Your task to perform on an android device: change alarm snooze length Image 0: 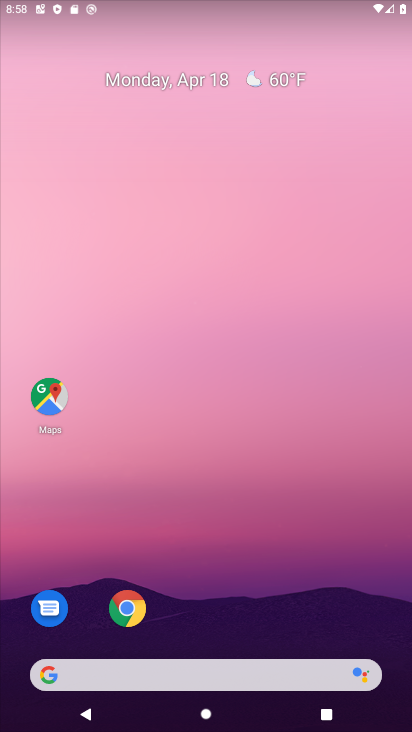
Step 0: drag from (212, 625) to (276, 114)
Your task to perform on an android device: change alarm snooze length Image 1: 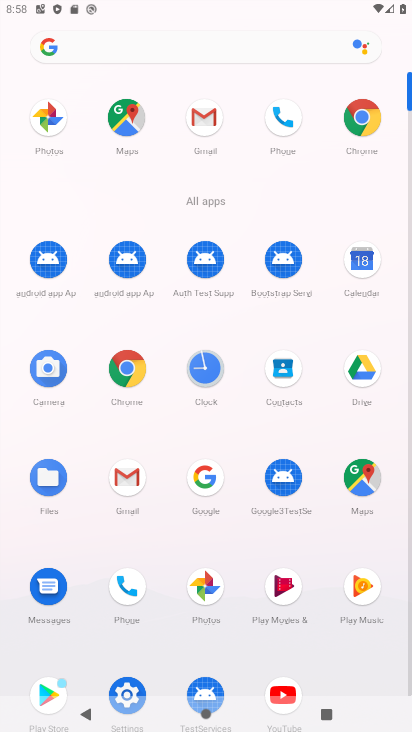
Step 1: drag from (181, 592) to (214, 227)
Your task to perform on an android device: change alarm snooze length Image 2: 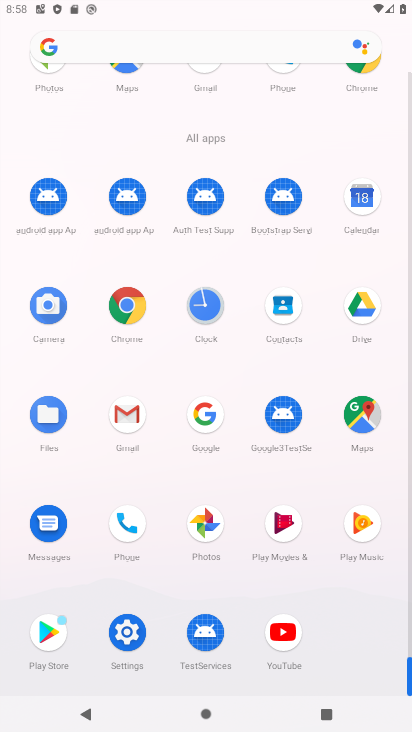
Step 2: click (205, 307)
Your task to perform on an android device: change alarm snooze length Image 3: 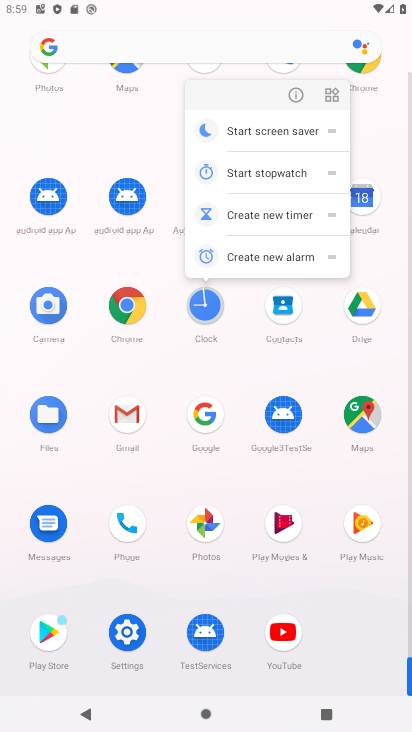
Step 3: click (298, 87)
Your task to perform on an android device: change alarm snooze length Image 4: 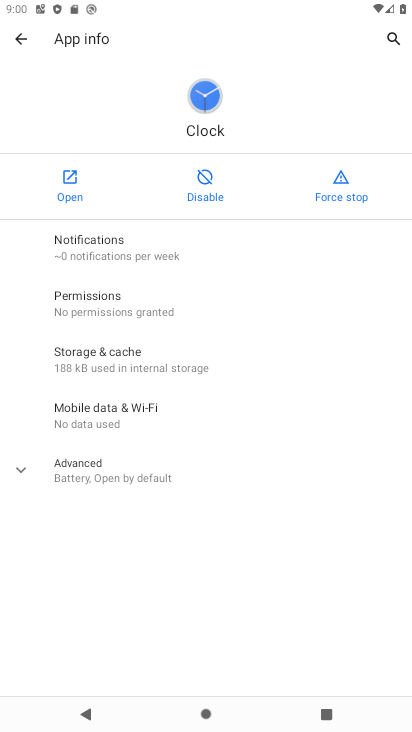
Step 4: click (65, 178)
Your task to perform on an android device: change alarm snooze length Image 5: 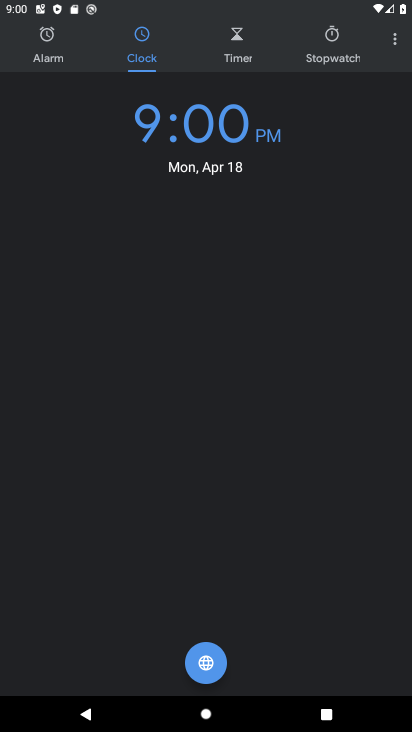
Step 5: click (242, 38)
Your task to perform on an android device: change alarm snooze length Image 6: 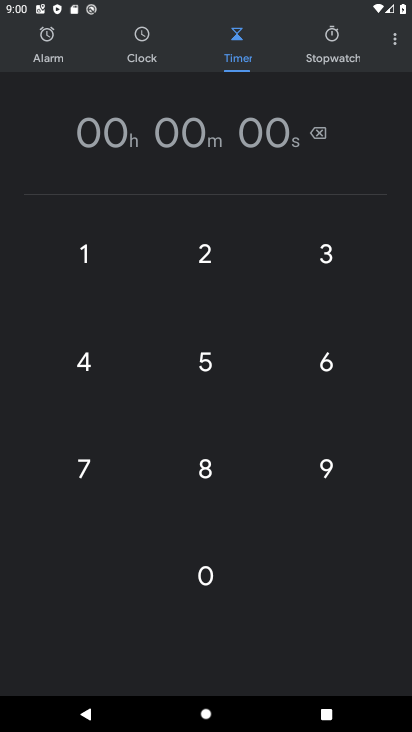
Step 6: click (345, 52)
Your task to perform on an android device: change alarm snooze length Image 7: 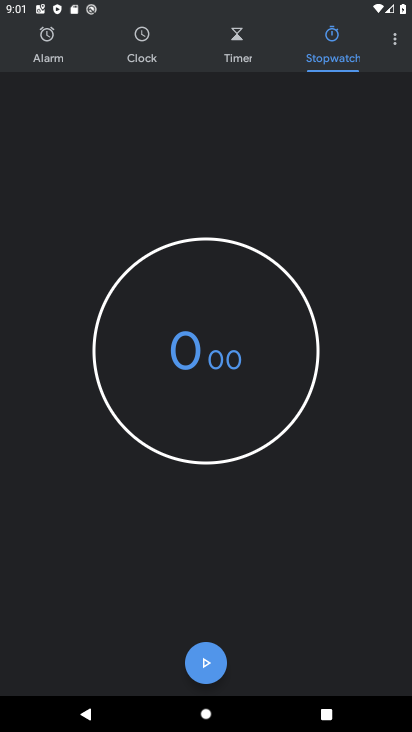
Step 7: click (228, 565)
Your task to perform on an android device: change alarm snooze length Image 8: 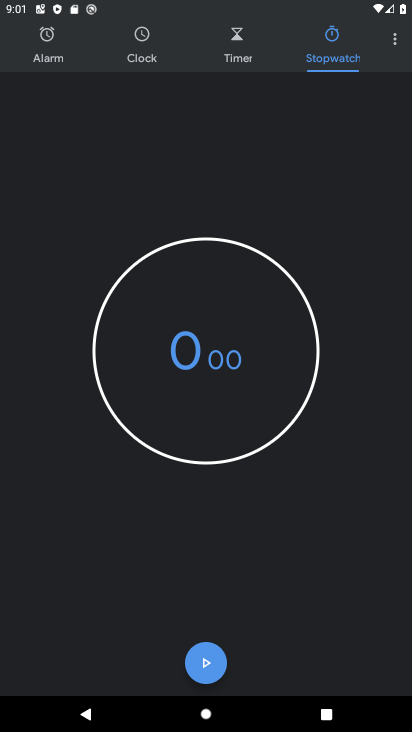
Step 8: drag from (151, 485) to (186, 142)
Your task to perform on an android device: change alarm snooze length Image 9: 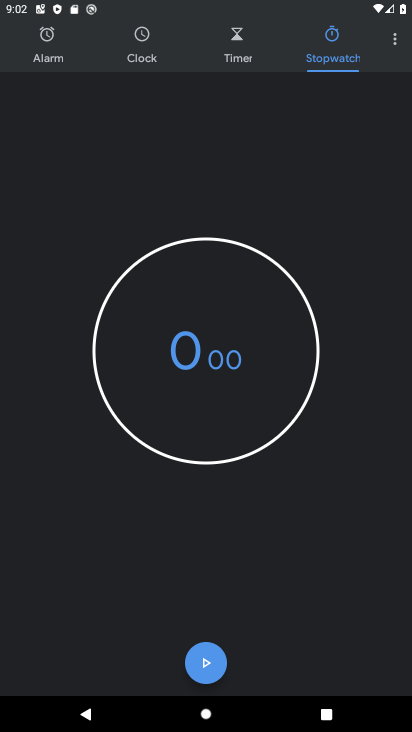
Step 9: click (233, 48)
Your task to perform on an android device: change alarm snooze length Image 10: 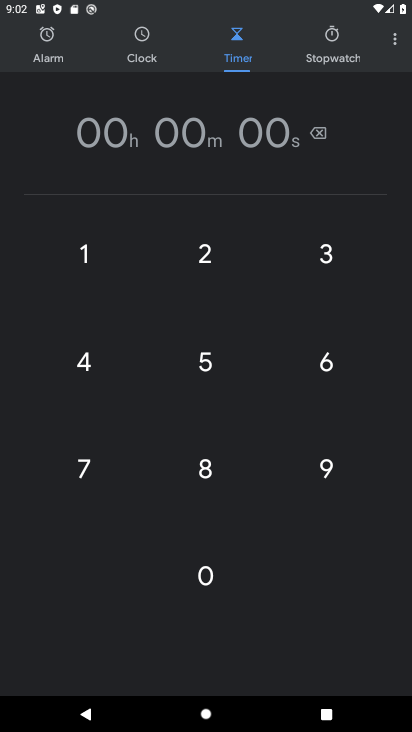
Step 10: click (374, 46)
Your task to perform on an android device: change alarm snooze length Image 11: 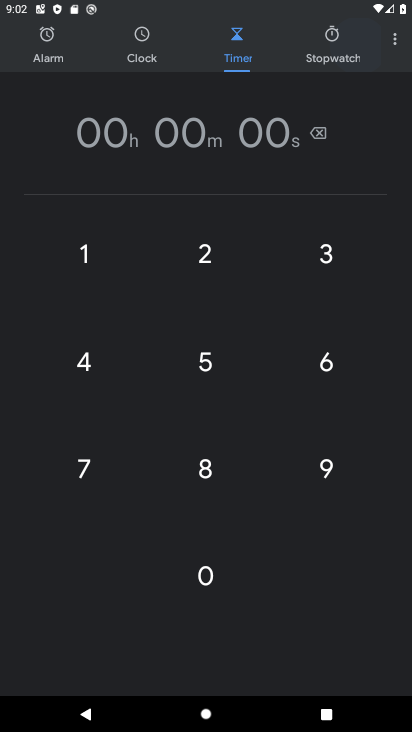
Step 11: click (382, 42)
Your task to perform on an android device: change alarm snooze length Image 12: 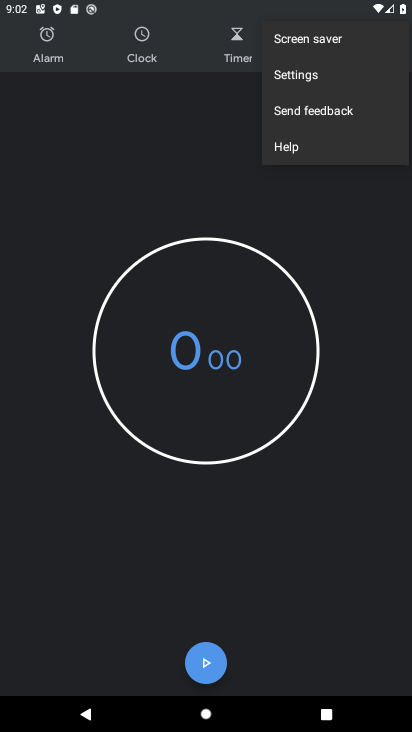
Step 12: click (286, 85)
Your task to perform on an android device: change alarm snooze length Image 13: 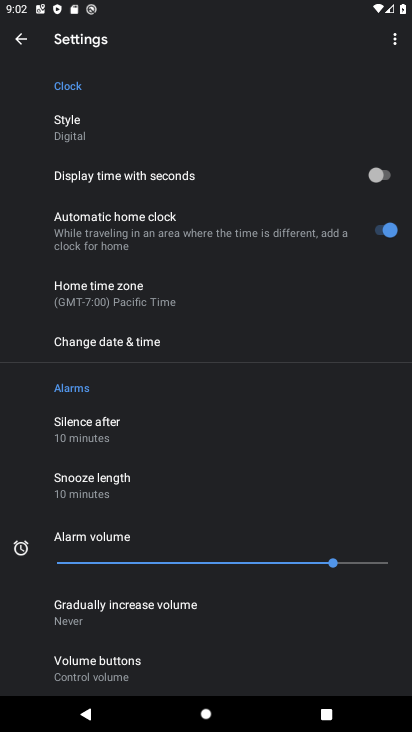
Step 13: click (130, 474)
Your task to perform on an android device: change alarm snooze length Image 14: 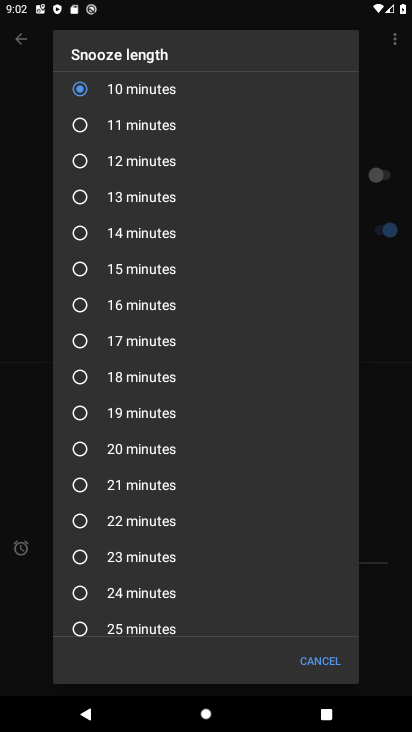
Step 14: click (110, 333)
Your task to perform on an android device: change alarm snooze length Image 15: 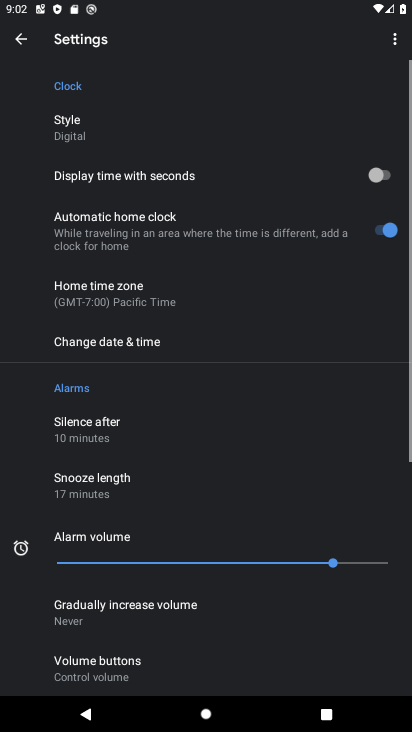
Step 15: task complete